Your task to perform on an android device: What's on my calendar today? Image 0: 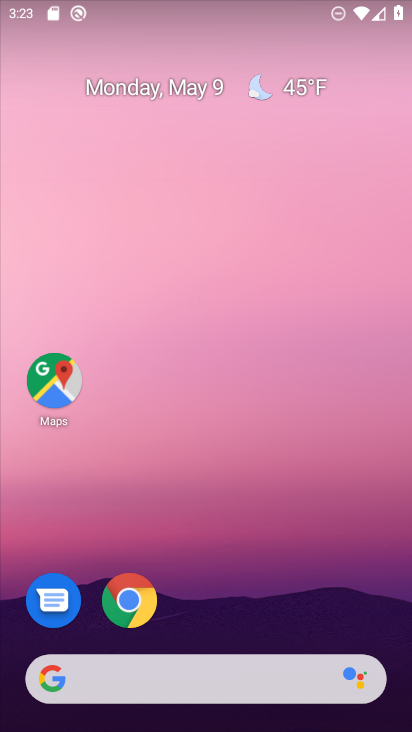
Step 0: drag from (306, 575) to (129, 0)
Your task to perform on an android device: What's on my calendar today? Image 1: 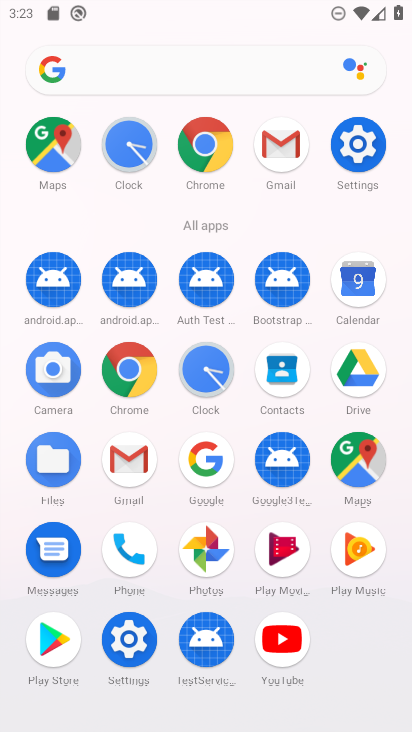
Step 1: drag from (18, 581) to (12, 165)
Your task to perform on an android device: What's on my calendar today? Image 2: 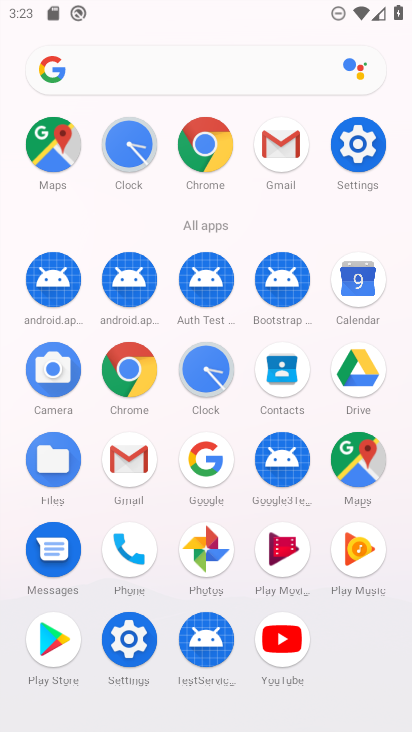
Step 2: drag from (18, 532) to (0, 266)
Your task to perform on an android device: What's on my calendar today? Image 3: 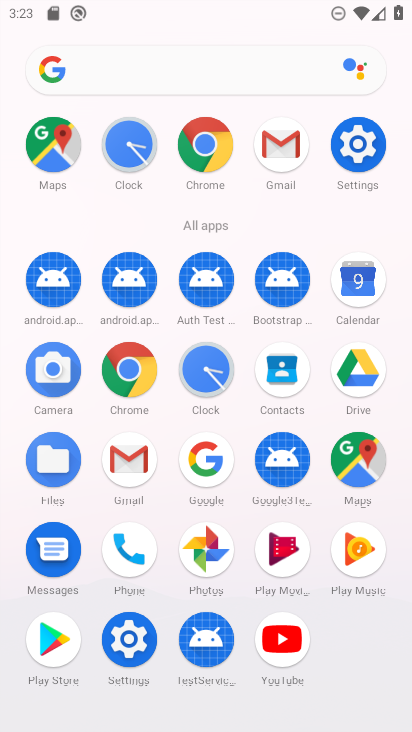
Step 3: click (348, 272)
Your task to perform on an android device: What's on my calendar today? Image 4: 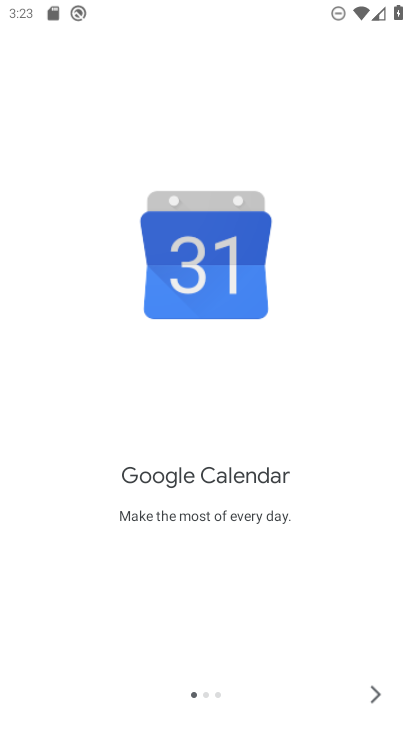
Step 4: click (364, 689)
Your task to perform on an android device: What's on my calendar today? Image 5: 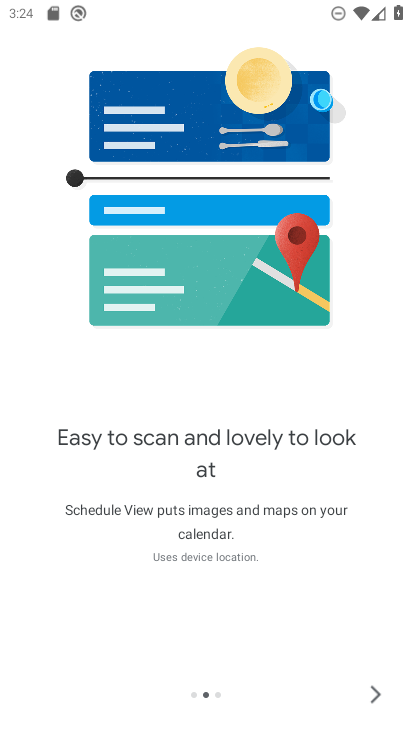
Step 5: click (365, 690)
Your task to perform on an android device: What's on my calendar today? Image 6: 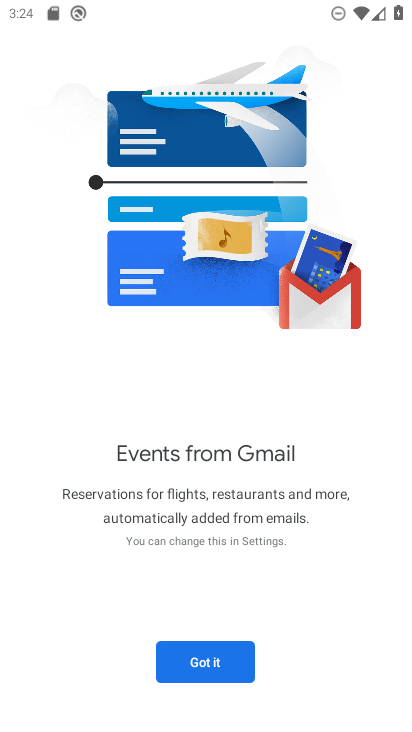
Step 6: click (228, 663)
Your task to perform on an android device: What's on my calendar today? Image 7: 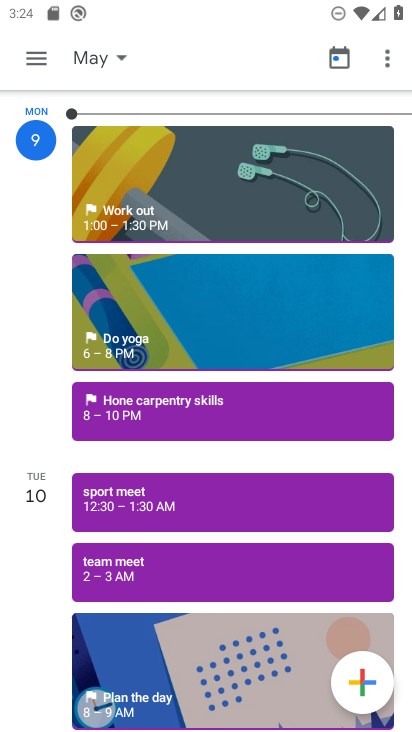
Step 7: task complete